Your task to perform on an android device: move a message to another label in the gmail app Image 0: 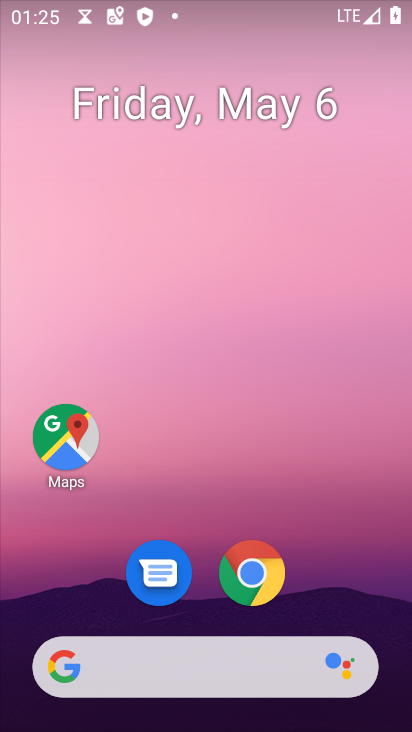
Step 0: drag from (355, 466) to (349, 204)
Your task to perform on an android device: move a message to another label in the gmail app Image 1: 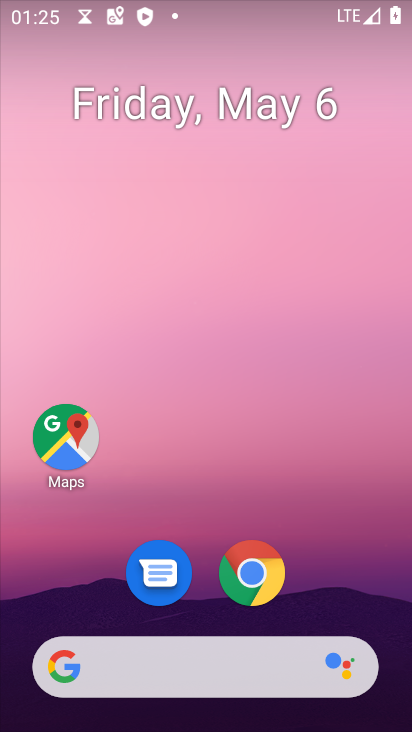
Step 1: drag from (244, 449) to (253, 196)
Your task to perform on an android device: move a message to another label in the gmail app Image 2: 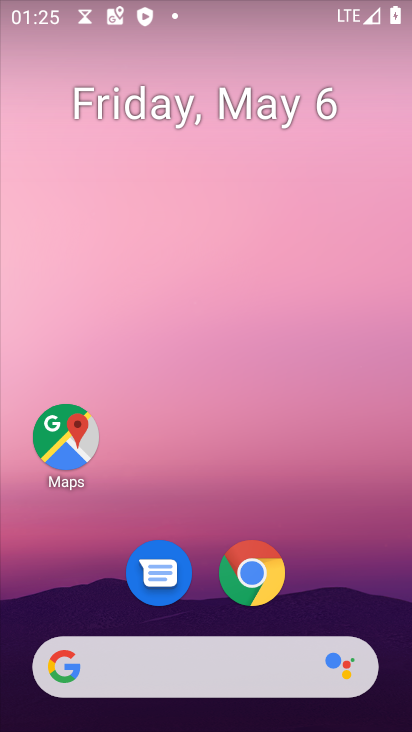
Step 2: drag from (214, 603) to (259, 145)
Your task to perform on an android device: move a message to another label in the gmail app Image 3: 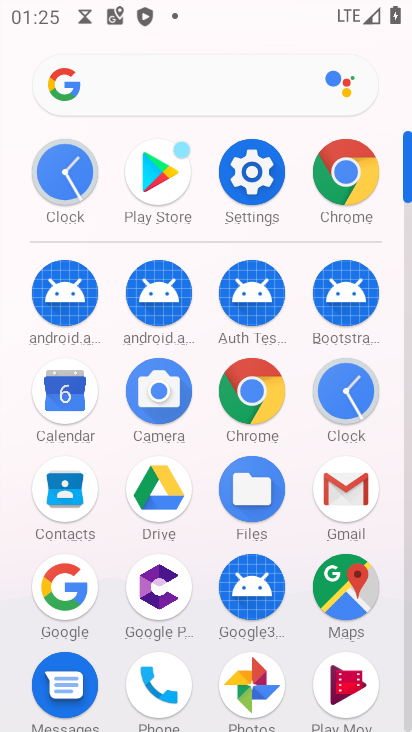
Step 3: click (351, 492)
Your task to perform on an android device: move a message to another label in the gmail app Image 4: 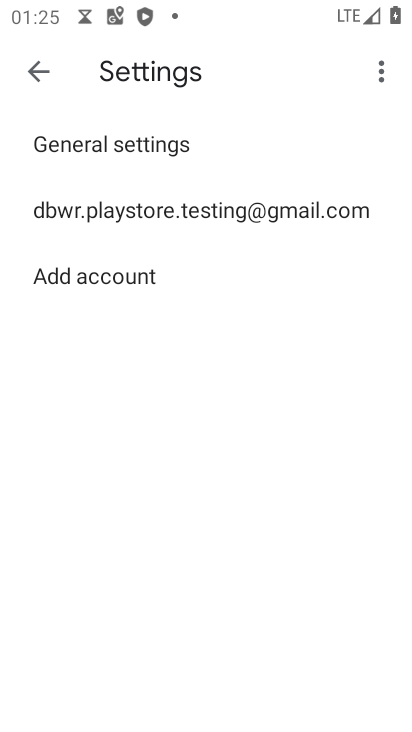
Step 4: click (40, 73)
Your task to perform on an android device: move a message to another label in the gmail app Image 5: 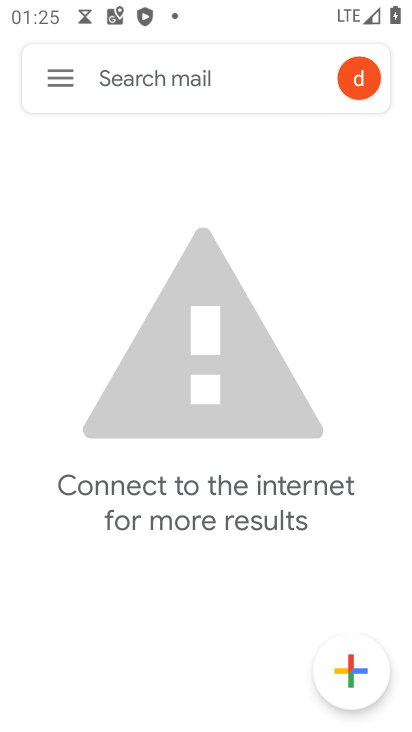
Step 5: click (40, 73)
Your task to perform on an android device: move a message to another label in the gmail app Image 6: 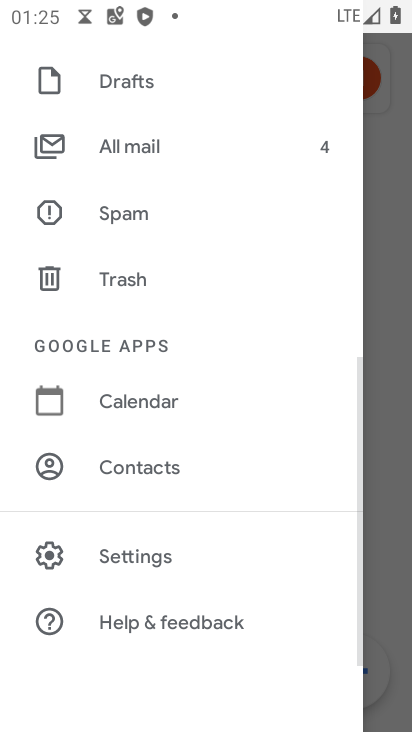
Step 6: click (132, 155)
Your task to perform on an android device: move a message to another label in the gmail app Image 7: 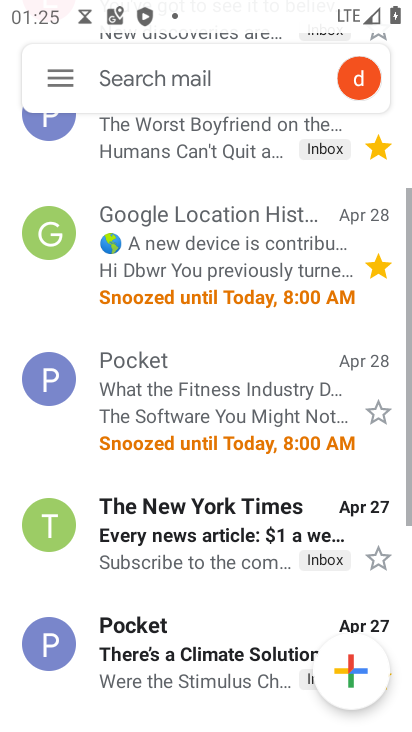
Step 7: click (55, 150)
Your task to perform on an android device: move a message to another label in the gmail app Image 8: 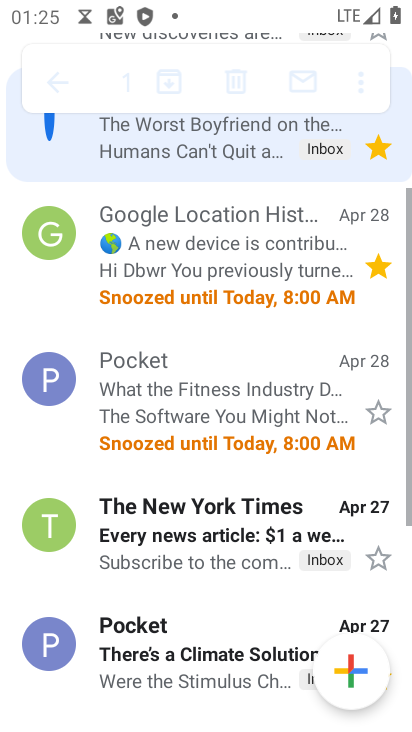
Step 8: click (53, 134)
Your task to perform on an android device: move a message to another label in the gmail app Image 9: 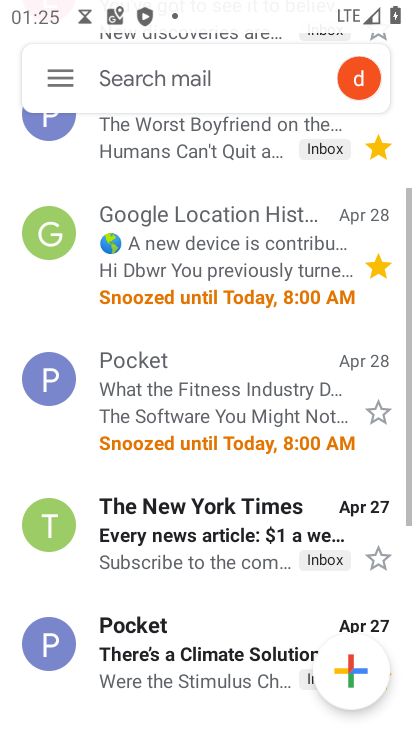
Step 9: click (53, 120)
Your task to perform on an android device: move a message to another label in the gmail app Image 10: 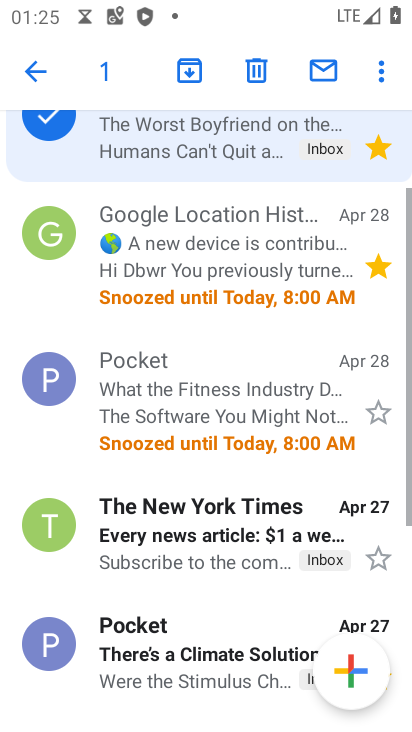
Step 10: click (370, 70)
Your task to perform on an android device: move a message to another label in the gmail app Image 11: 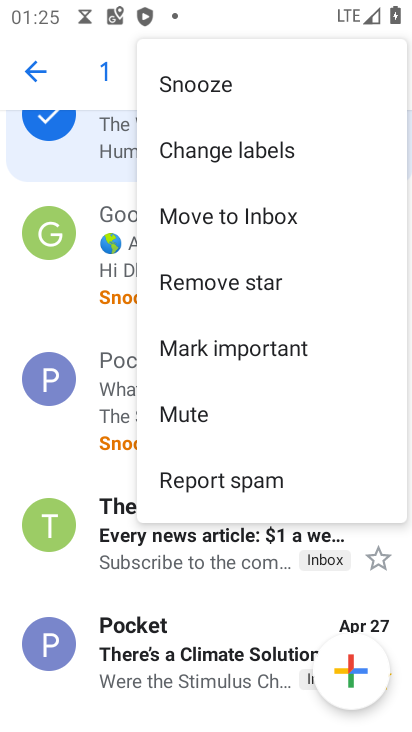
Step 11: click (213, 208)
Your task to perform on an android device: move a message to another label in the gmail app Image 12: 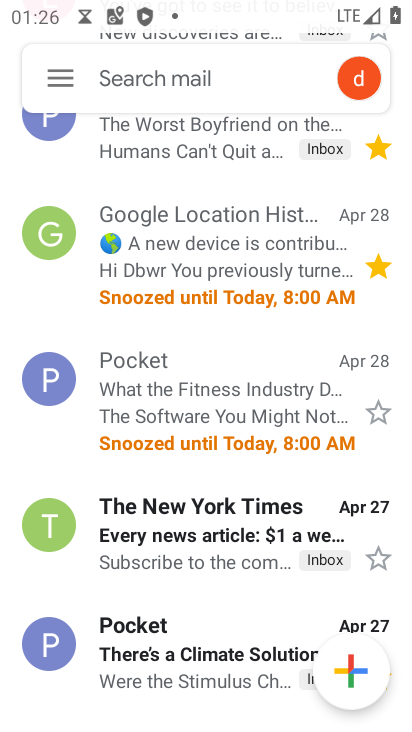
Step 12: task complete